Your task to perform on an android device: turn on the 24-hour format for clock Image 0: 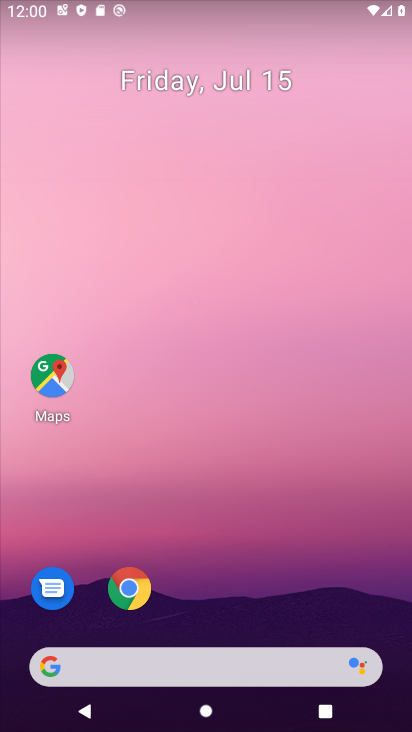
Step 0: drag from (214, 562) to (278, 47)
Your task to perform on an android device: turn on the 24-hour format for clock Image 1: 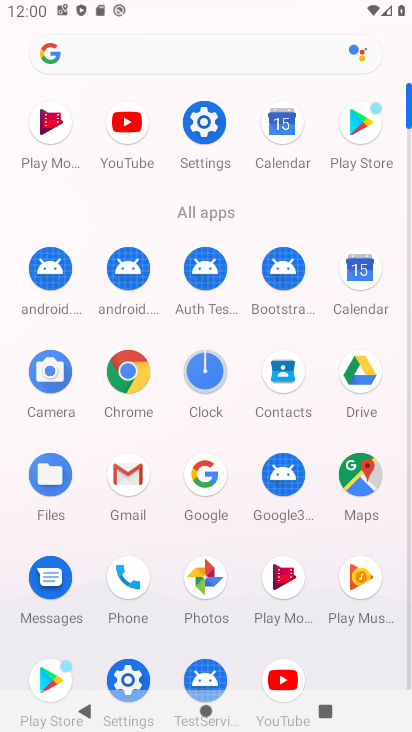
Step 1: click (199, 378)
Your task to perform on an android device: turn on the 24-hour format for clock Image 2: 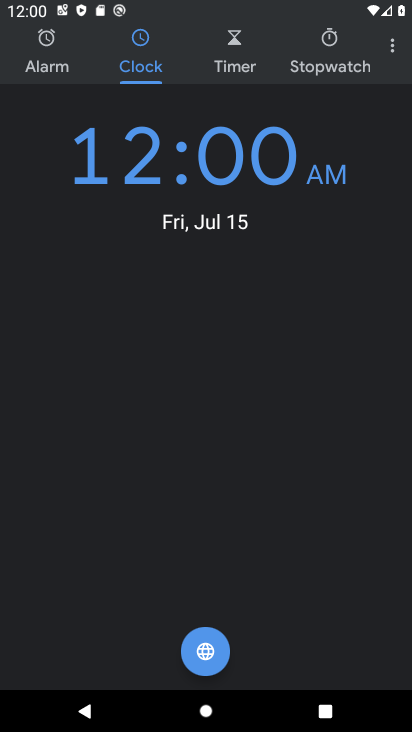
Step 2: click (388, 42)
Your task to perform on an android device: turn on the 24-hour format for clock Image 3: 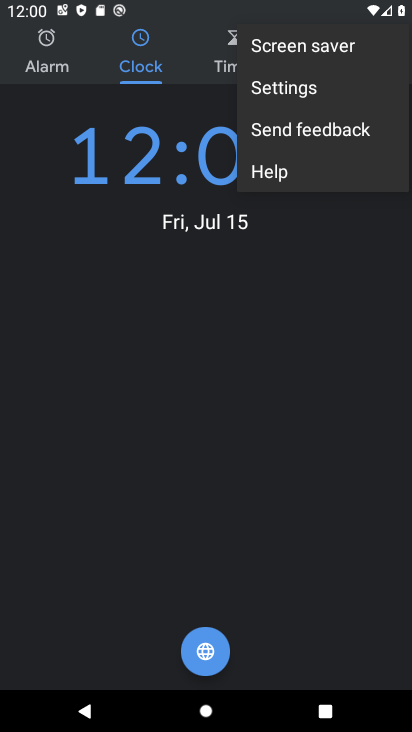
Step 3: click (262, 89)
Your task to perform on an android device: turn on the 24-hour format for clock Image 4: 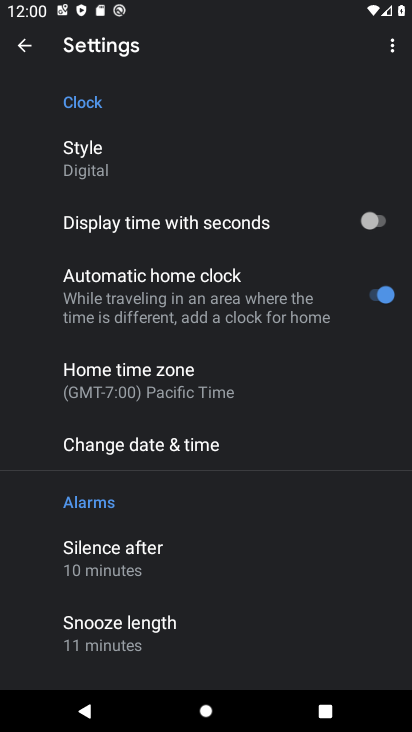
Step 4: click (125, 450)
Your task to perform on an android device: turn on the 24-hour format for clock Image 5: 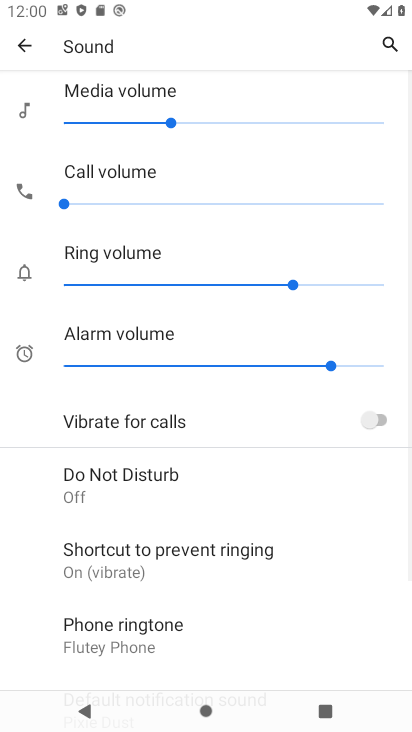
Step 5: drag from (113, 598) to (228, 23)
Your task to perform on an android device: turn on the 24-hour format for clock Image 6: 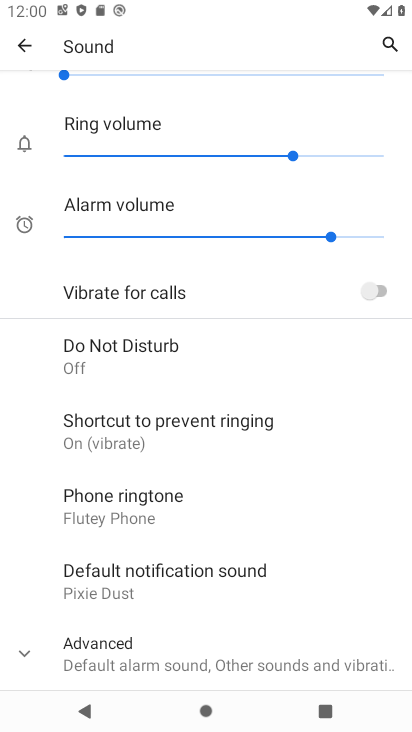
Step 6: drag from (235, 157) to (219, 691)
Your task to perform on an android device: turn on the 24-hour format for clock Image 7: 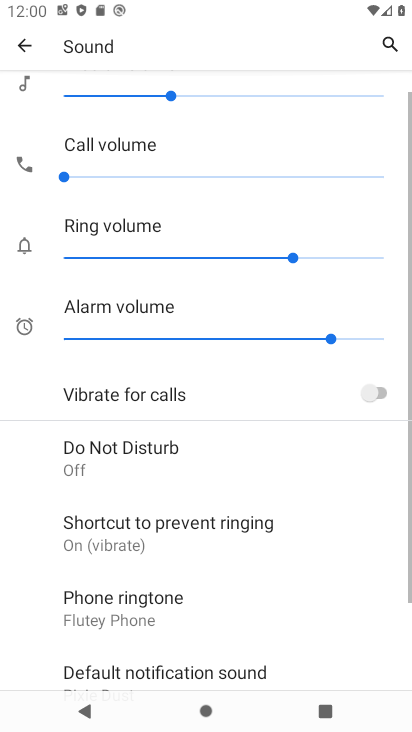
Step 7: click (33, 37)
Your task to perform on an android device: turn on the 24-hour format for clock Image 8: 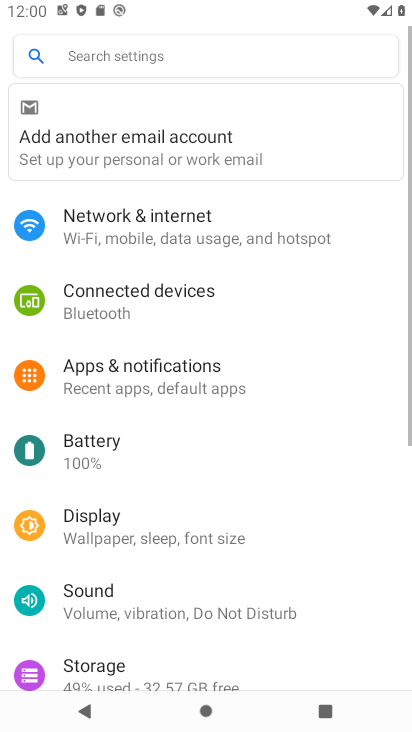
Step 8: press back button
Your task to perform on an android device: turn on the 24-hour format for clock Image 9: 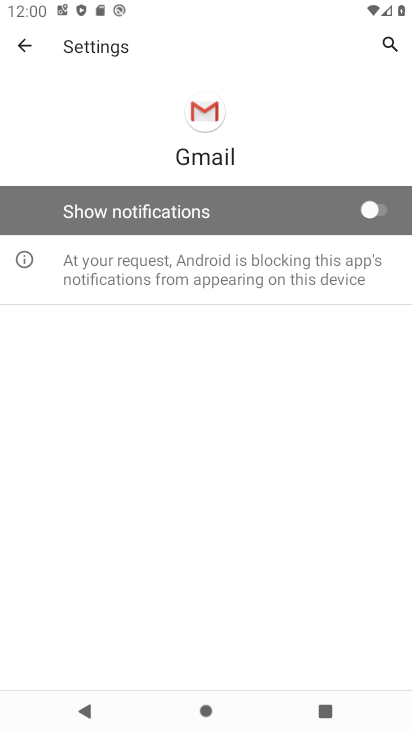
Step 9: press back button
Your task to perform on an android device: turn on the 24-hour format for clock Image 10: 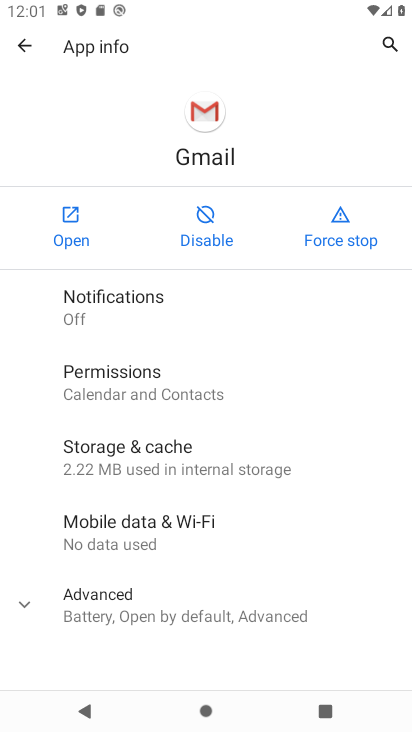
Step 10: press back button
Your task to perform on an android device: turn on the 24-hour format for clock Image 11: 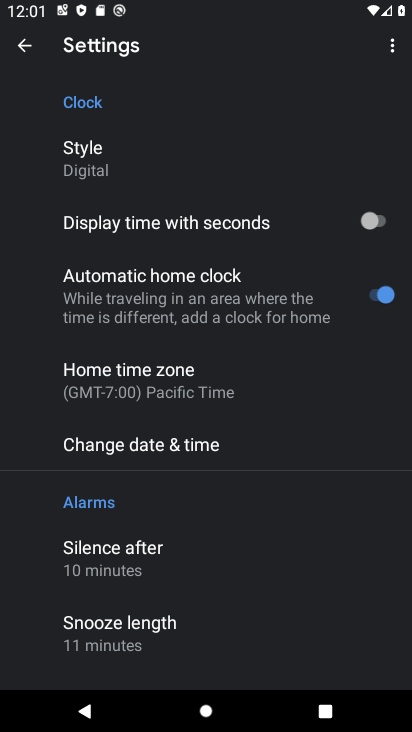
Step 11: click (150, 449)
Your task to perform on an android device: turn on the 24-hour format for clock Image 12: 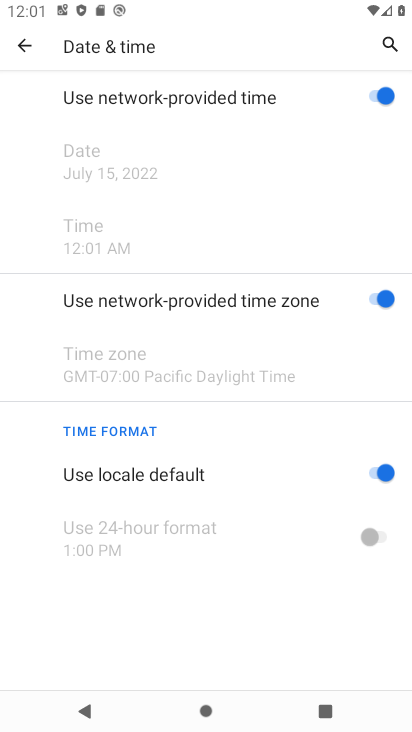
Step 12: click (387, 477)
Your task to perform on an android device: turn on the 24-hour format for clock Image 13: 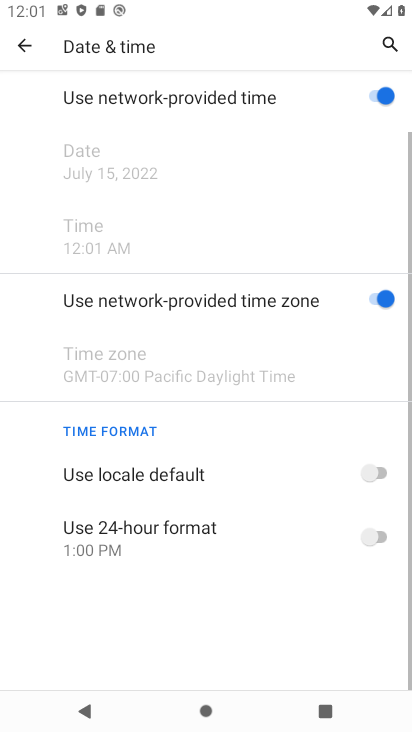
Step 13: click (371, 533)
Your task to perform on an android device: turn on the 24-hour format for clock Image 14: 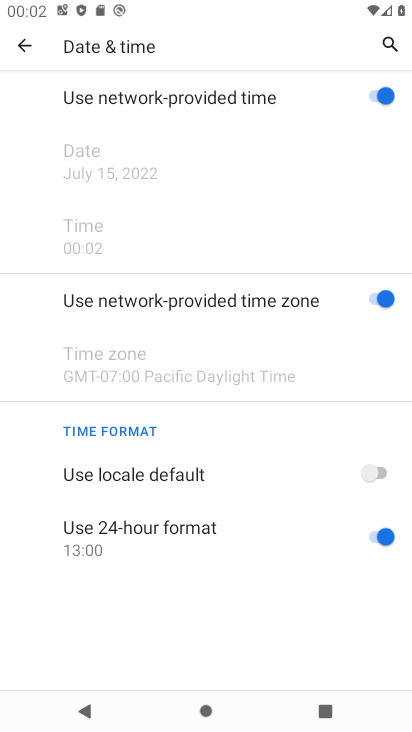
Step 14: task complete